Your task to perform on an android device: read, delete, or share a saved page in the chrome app Image 0: 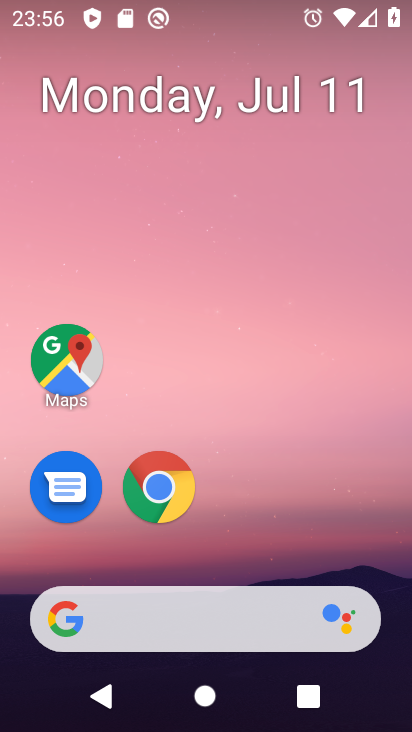
Step 0: press home button
Your task to perform on an android device: read, delete, or share a saved page in the chrome app Image 1: 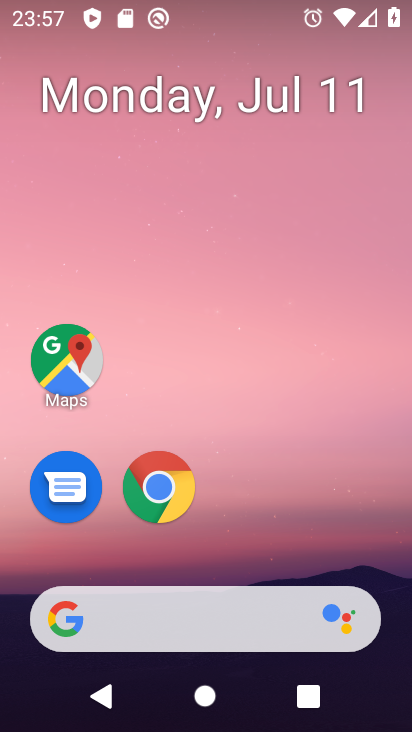
Step 1: drag from (329, 516) to (301, 245)
Your task to perform on an android device: read, delete, or share a saved page in the chrome app Image 2: 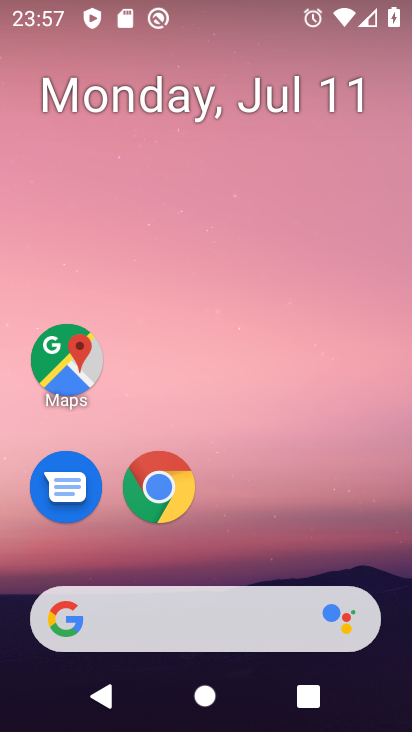
Step 2: drag from (363, 547) to (329, 76)
Your task to perform on an android device: read, delete, or share a saved page in the chrome app Image 3: 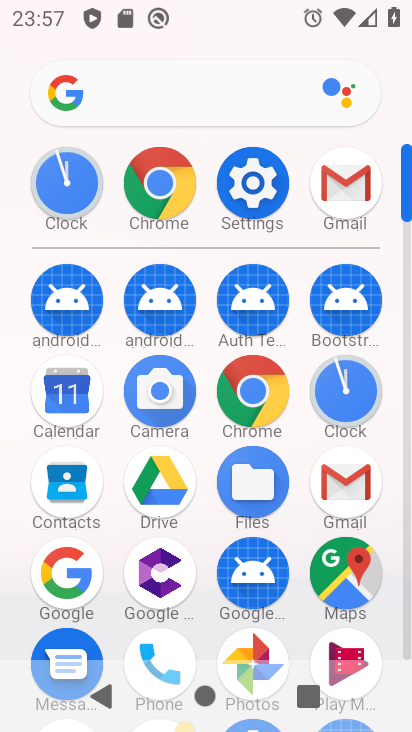
Step 3: click (261, 388)
Your task to perform on an android device: read, delete, or share a saved page in the chrome app Image 4: 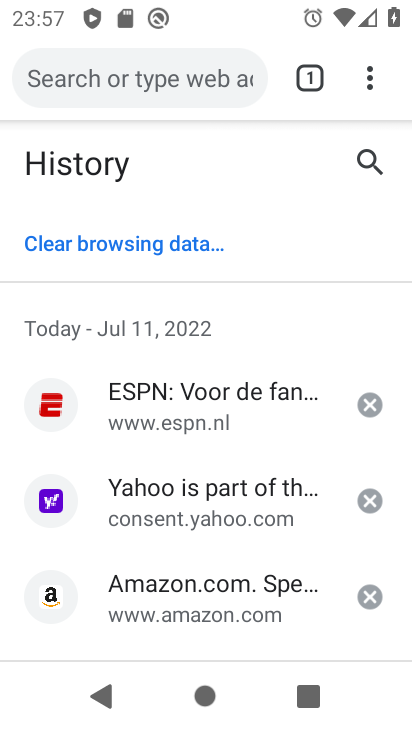
Step 4: click (370, 87)
Your task to perform on an android device: read, delete, or share a saved page in the chrome app Image 5: 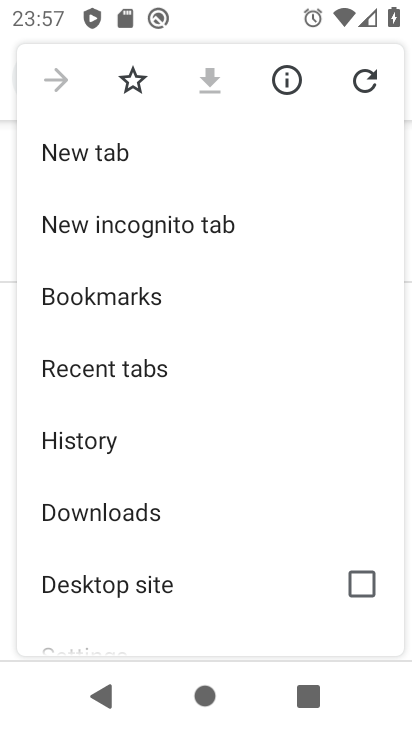
Step 5: drag from (265, 333) to (265, 246)
Your task to perform on an android device: read, delete, or share a saved page in the chrome app Image 6: 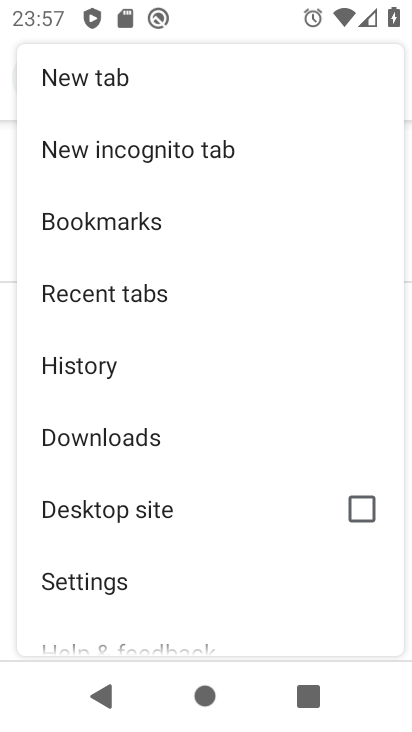
Step 6: drag from (265, 383) to (269, 278)
Your task to perform on an android device: read, delete, or share a saved page in the chrome app Image 7: 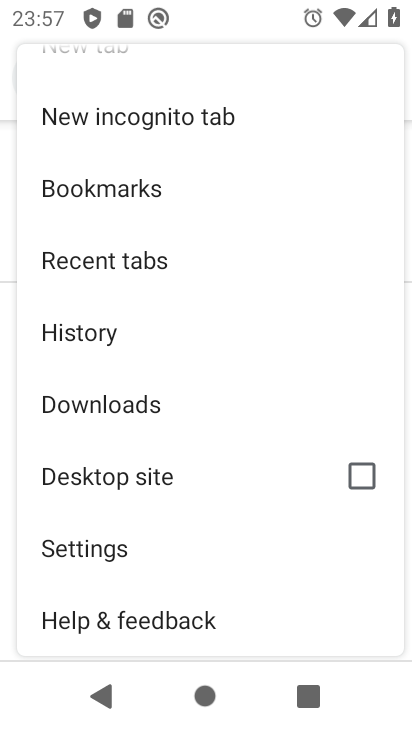
Step 7: drag from (261, 383) to (260, 276)
Your task to perform on an android device: read, delete, or share a saved page in the chrome app Image 8: 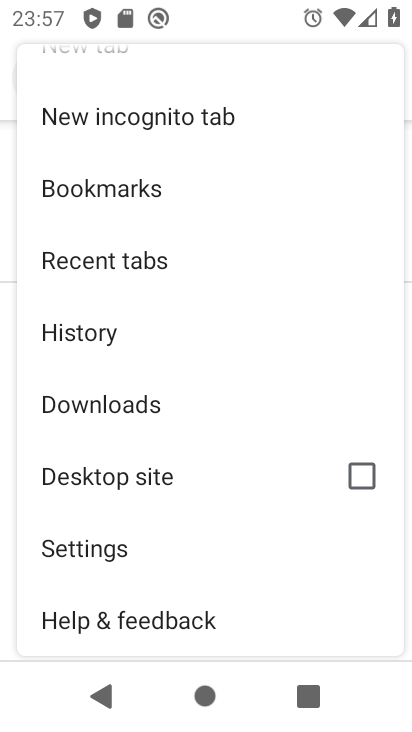
Step 8: click (188, 419)
Your task to perform on an android device: read, delete, or share a saved page in the chrome app Image 9: 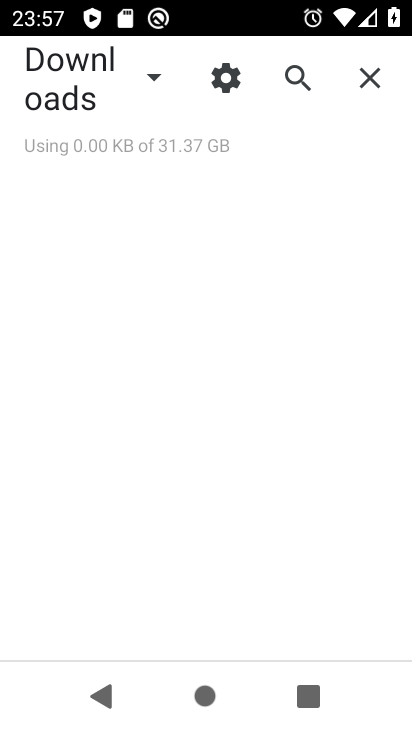
Step 9: click (158, 84)
Your task to perform on an android device: read, delete, or share a saved page in the chrome app Image 10: 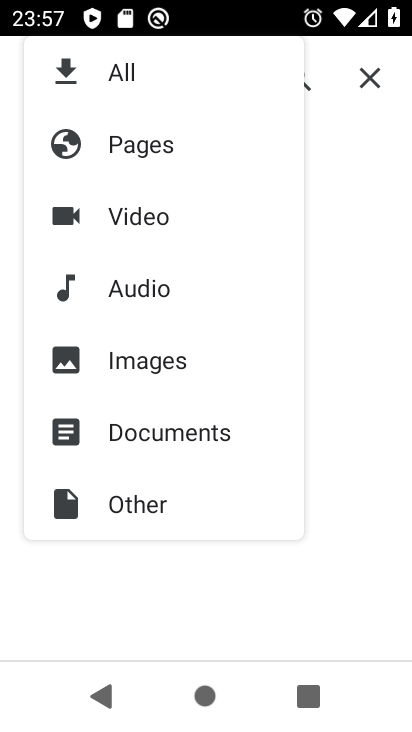
Step 10: click (152, 148)
Your task to perform on an android device: read, delete, or share a saved page in the chrome app Image 11: 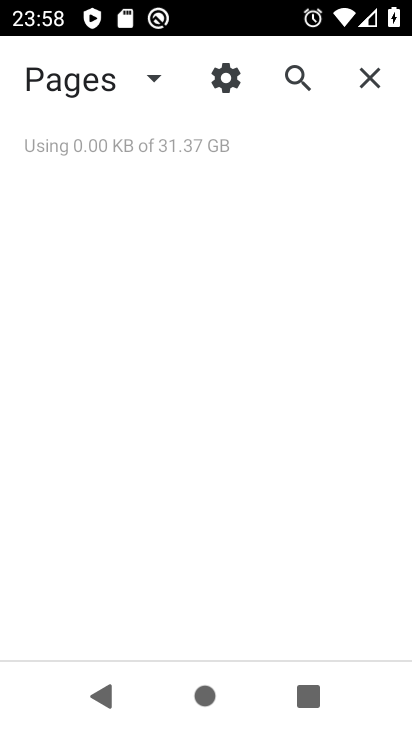
Step 11: task complete